Your task to perform on an android device: check battery use Image 0: 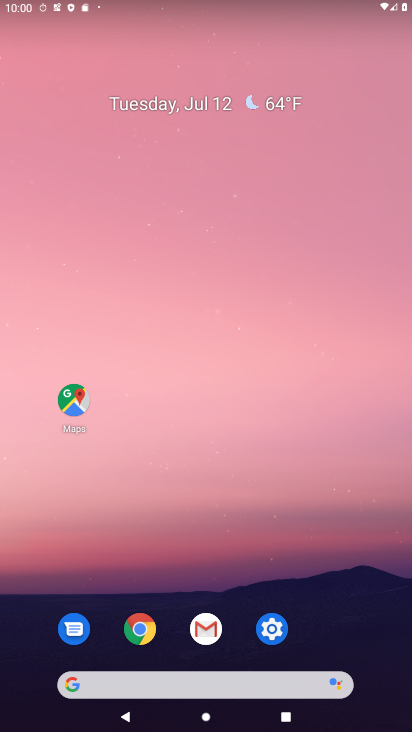
Step 0: click (271, 638)
Your task to perform on an android device: check battery use Image 1: 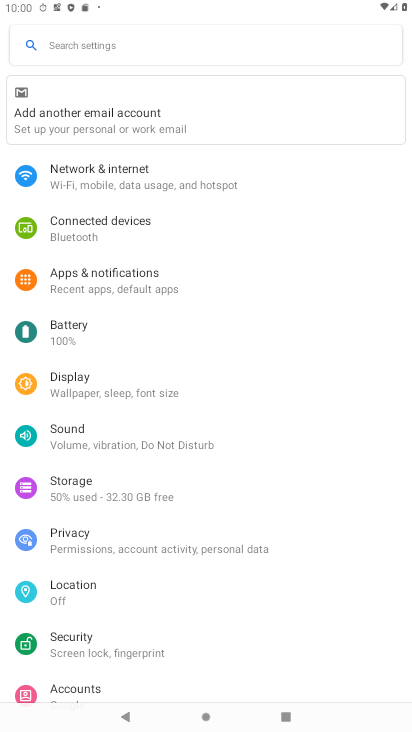
Step 1: click (93, 332)
Your task to perform on an android device: check battery use Image 2: 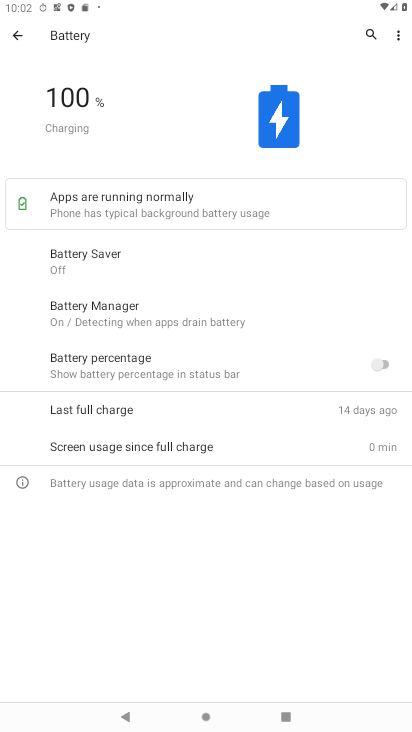
Step 2: task complete